Your task to perform on an android device: toggle notifications settings in the gmail app Image 0: 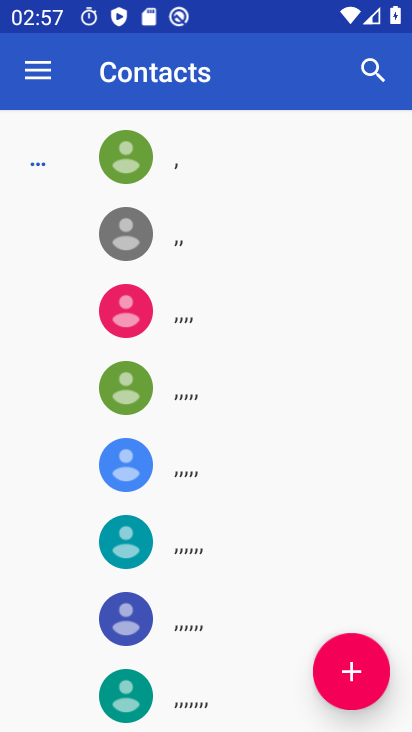
Step 0: press home button
Your task to perform on an android device: toggle notifications settings in the gmail app Image 1: 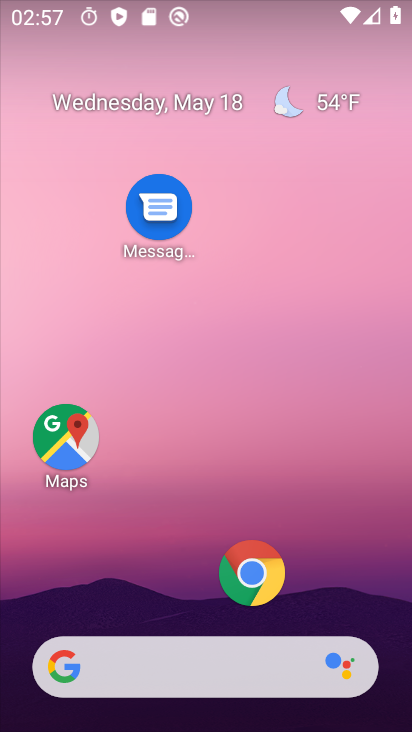
Step 1: drag from (173, 623) to (204, 214)
Your task to perform on an android device: toggle notifications settings in the gmail app Image 2: 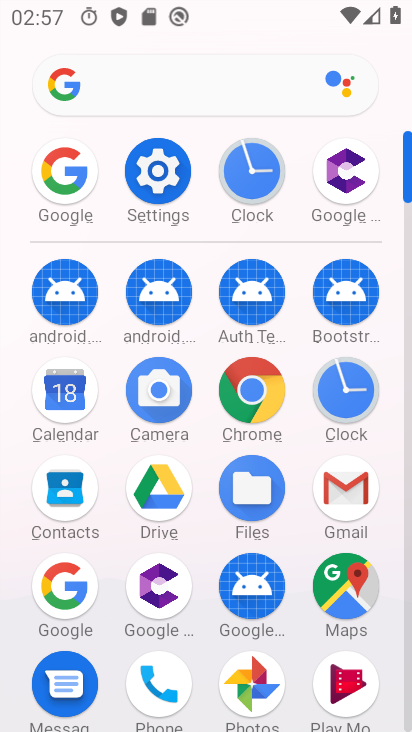
Step 2: click (324, 504)
Your task to perform on an android device: toggle notifications settings in the gmail app Image 3: 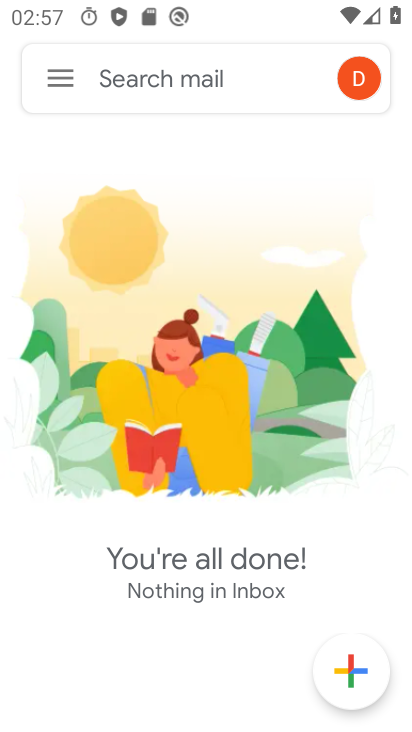
Step 3: click (68, 80)
Your task to perform on an android device: toggle notifications settings in the gmail app Image 4: 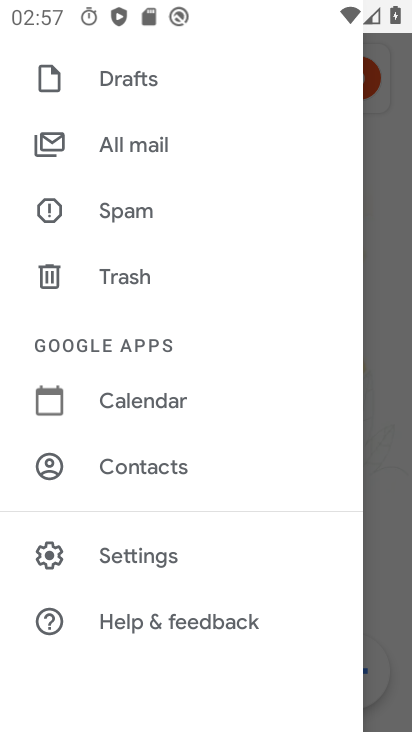
Step 4: click (165, 549)
Your task to perform on an android device: toggle notifications settings in the gmail app Image 5: 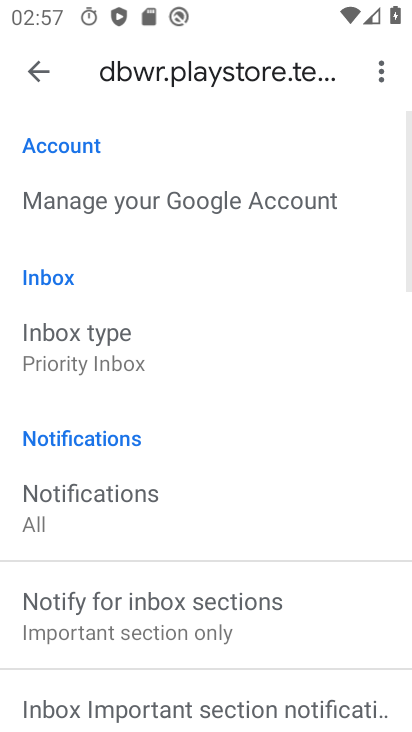
Step 5: drag from (191, 570) to (199, 365)
Your task to perform on an android device: toggle notifications settings in the gmail app Image 6: 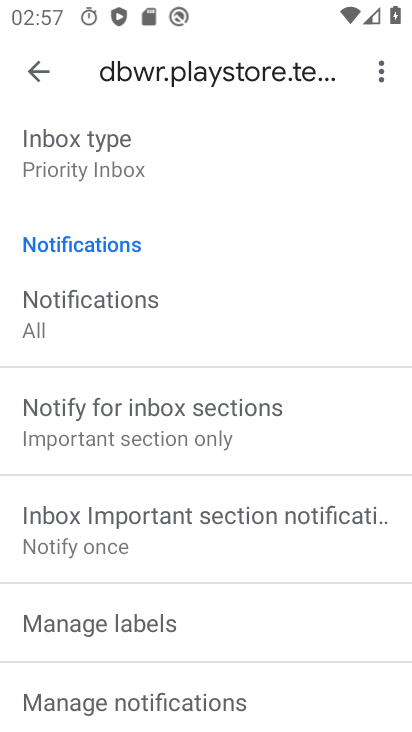
Step 6: drag from (189, 629) to (208, 511)
Your task to perform on an android device: toggle notifications settings in the gmail app Image 7: 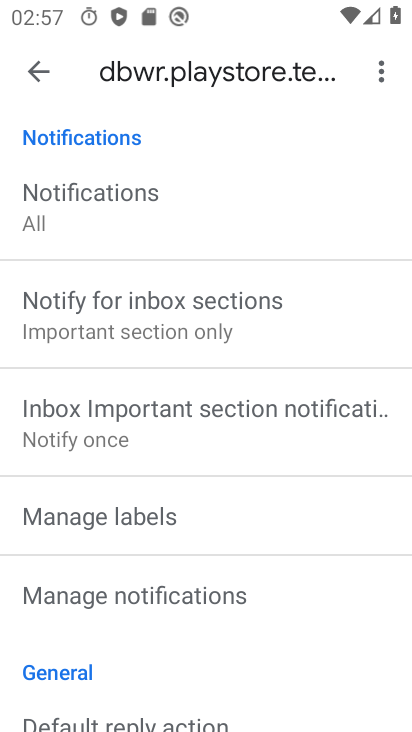
Step 7: click (210, 598)
Your task to perform on an android device: toggle notifications settings in the gmail app Image 8: 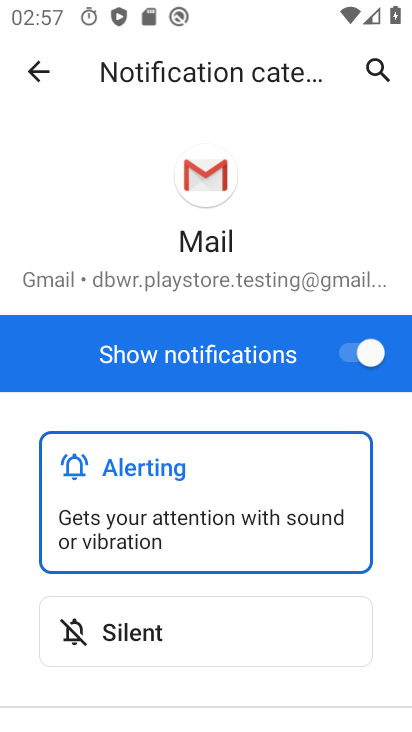
Step 8: click (354, 350)
Your task to perform on an android device: toggle notifications settings in the gmail app Image 9: 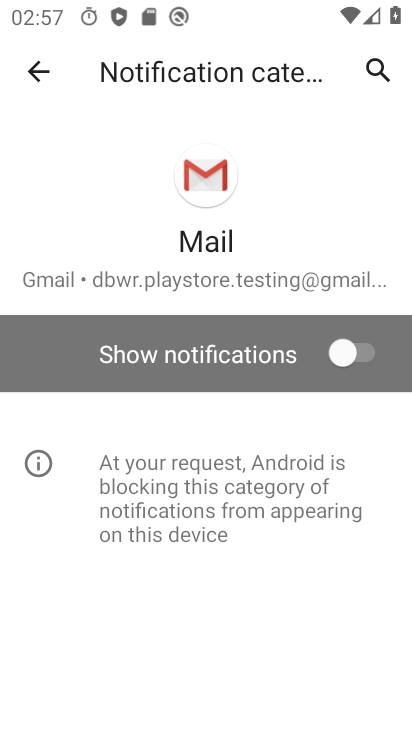
Step 9: task complete